Your task to perform on an android device: Search for vegetarian restaurants on Maps Image 0: 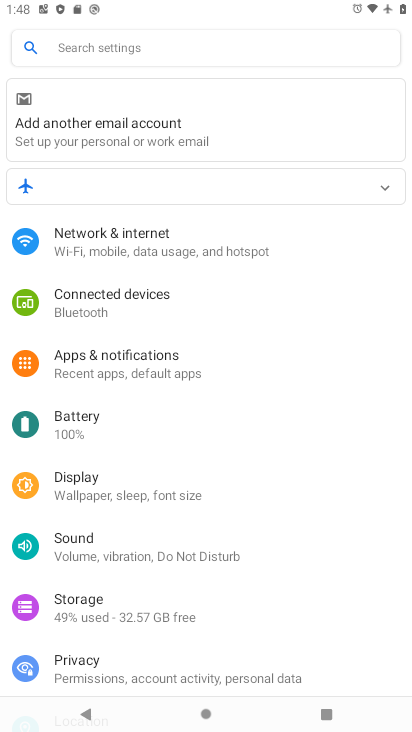
Step 0: press home button
Your task to perform on an android device: Search for vegetarian restaurants on Maps Image 1: 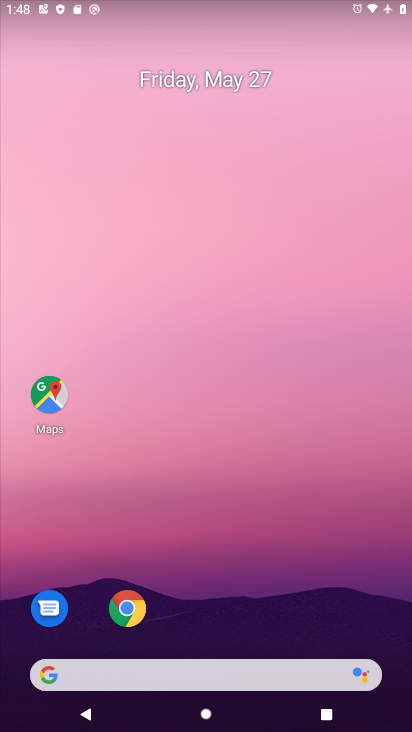
Step 1: click (45, 397)
Your task to perform on an android device: Search for vegetarian restaurants on Maps Image 2: 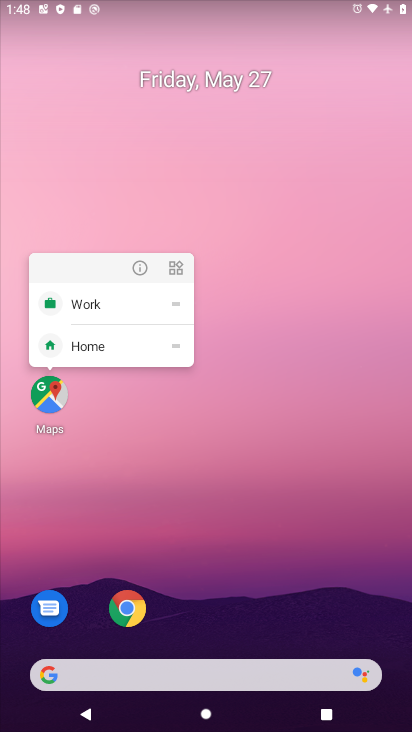
Step 2: click (45, 397)
Your task to perform on an android device: Search for vegetarian restaurants on Maps Image 3: 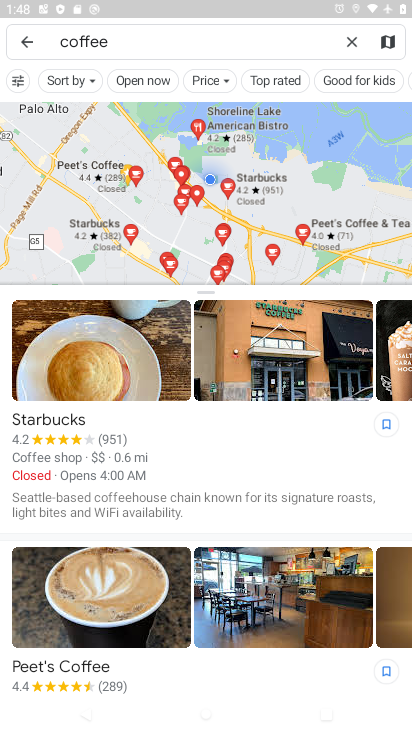
Step 3: click (353, 40)
Your task to perform on an android device: Search for vegetarian restaurants on Maps Image 4: 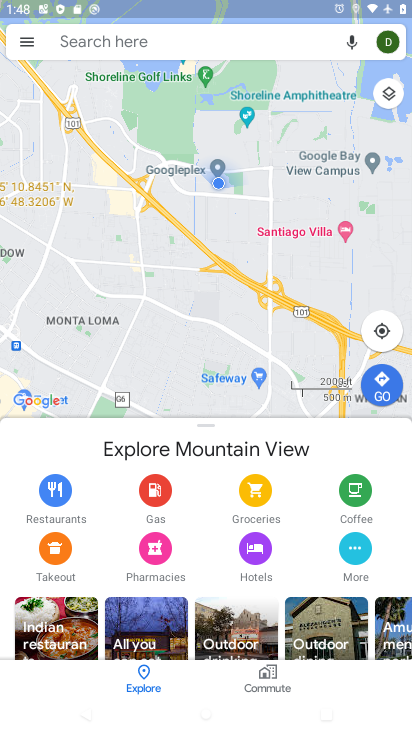
Step 4: click (160, 38)
Your task to perform on an android device: Search for vegetarian restaurants on Maps Image 5: 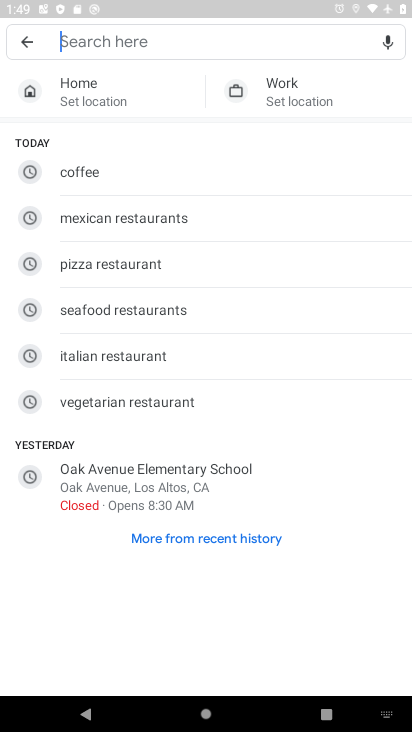
Step 5: click (121, 407)
Your task to perform on an android device: Search for vegetarian restaurants on Maps Image 6: 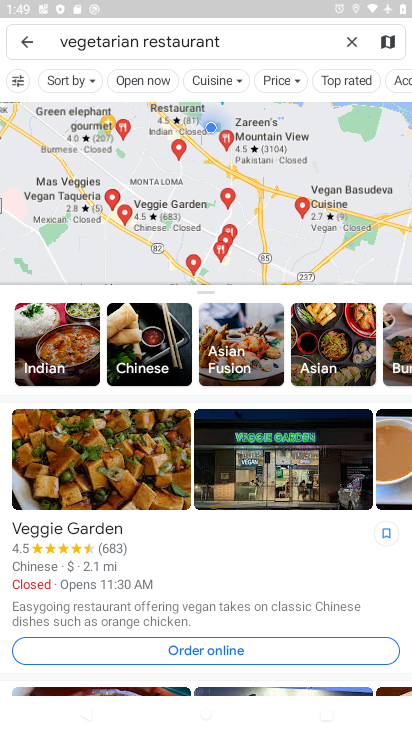
Step 6: task complete